Your task to perform on an android device: See recent photos Image 0: 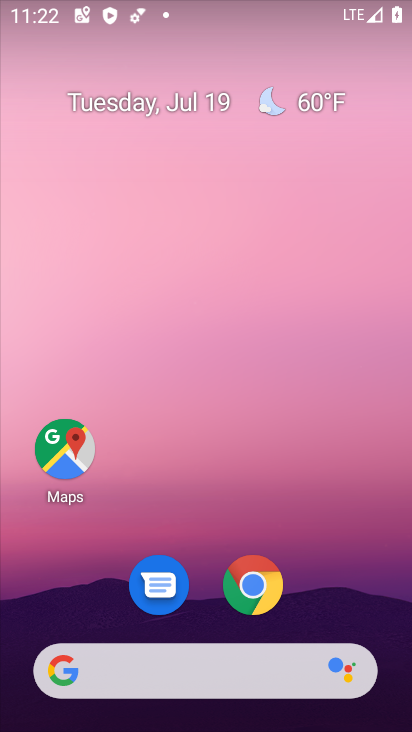
Step 0: drag from (334, 578) to (304, 39)
Your task to perform on an android device: See recent photos Image 1: 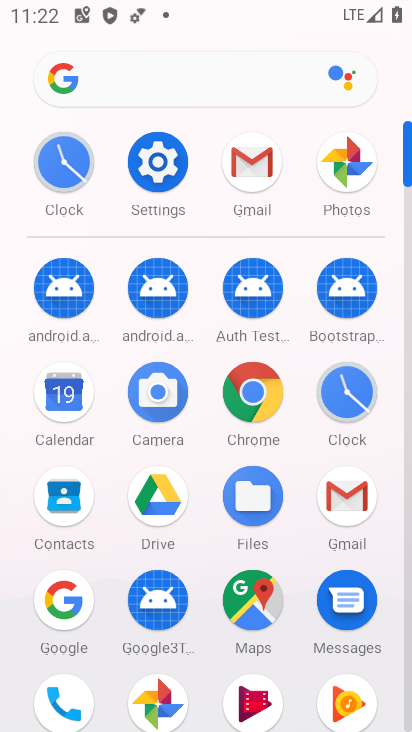
Step 1: click (342, 166)
Your task to perform on an android device: See recent photos Image 2: 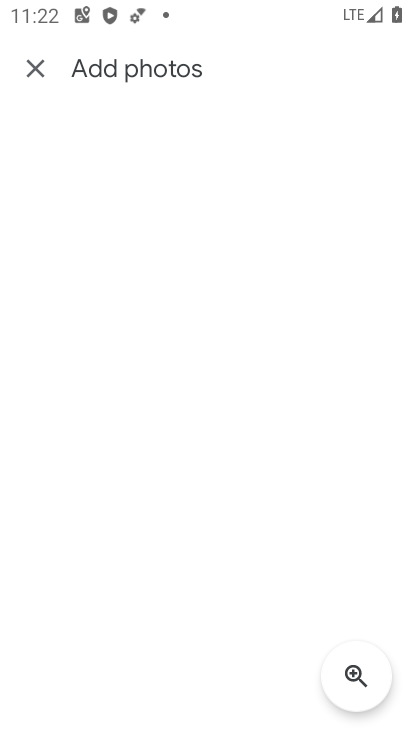
Step 2: click (37, 61)
Your task to perform on an android device: See recent photos Image 3: 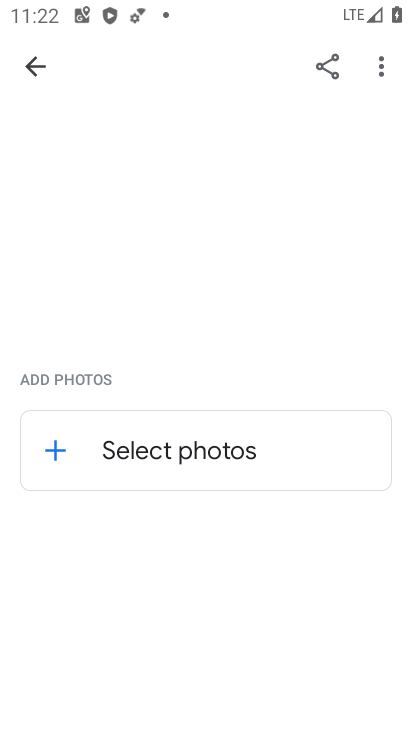
Step 3: click (35, 65)
Your task to perform on an android device: See recent photos Image 4: 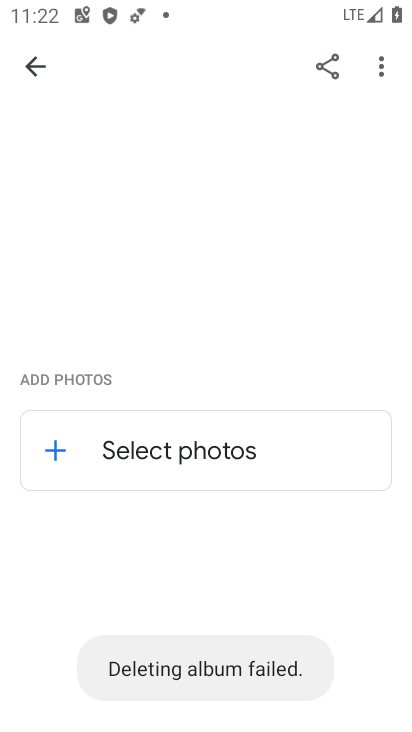
Step 4: click (35, 65)
Your task to perform on an android device: See recent photos Image 5: 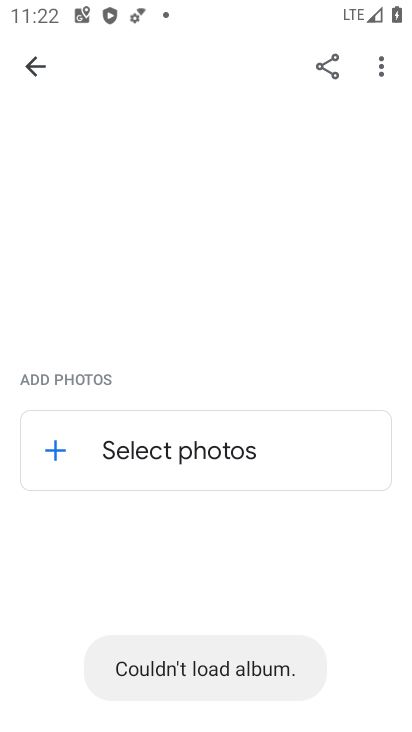
Step 5: click (35, 65)
Your task to perform on an android device: See recent photos Image 6: 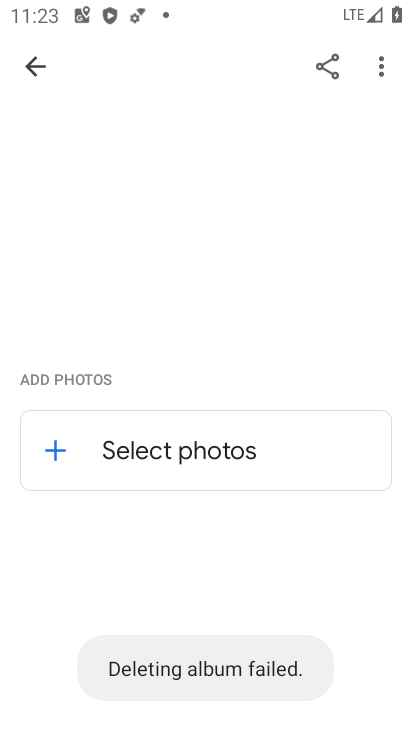
Step 6: click (377, 63)
Your task to perform on an android device: See recent photos Image 7: 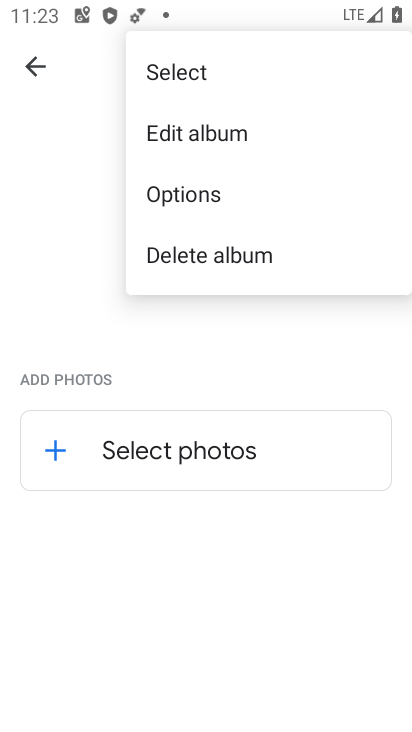
Step 7: click (223, 255)
Your task to perform on an android device: See recent photos Image 8: 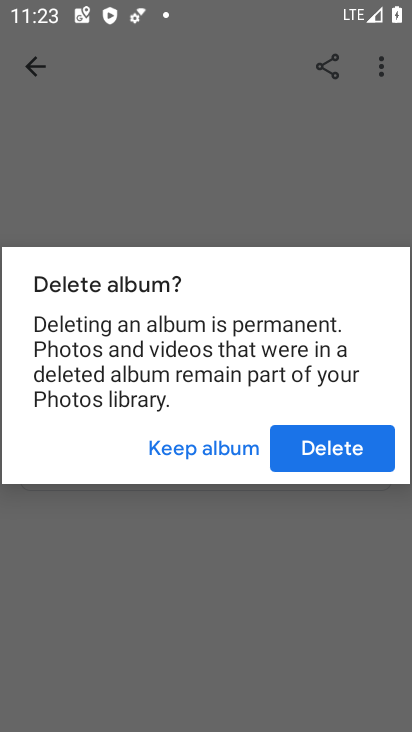
Step 8: click (330, 448)
Your task to perform on an android device: See recent photos Image 9: 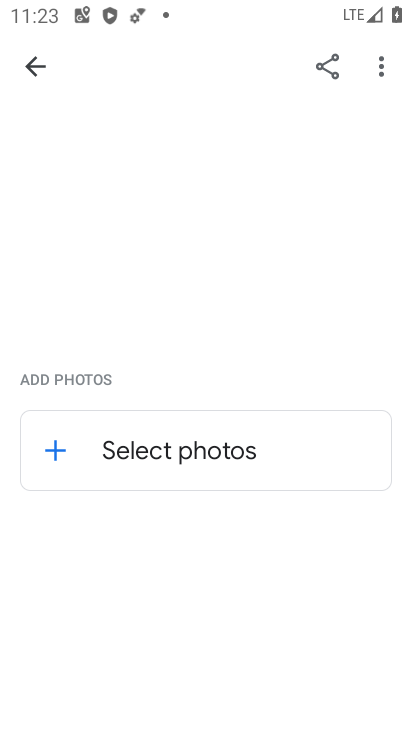
Step 9: click (36, 70)
Your task to perform on an android device: See recent photos Image 10: 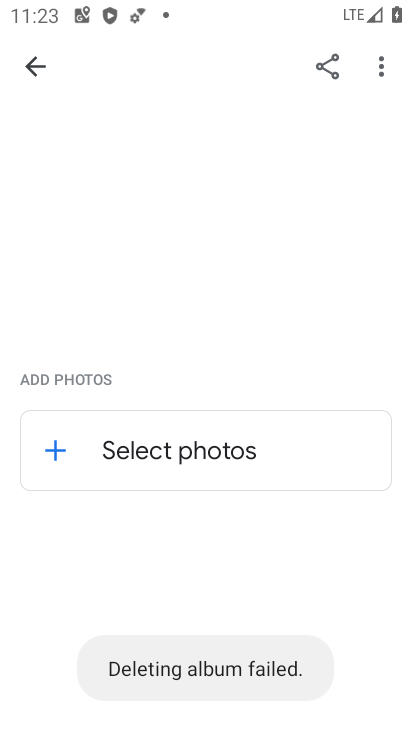
Step 10: click (35, 70)
Your task to perform on an android device: See recent photos Image 11: 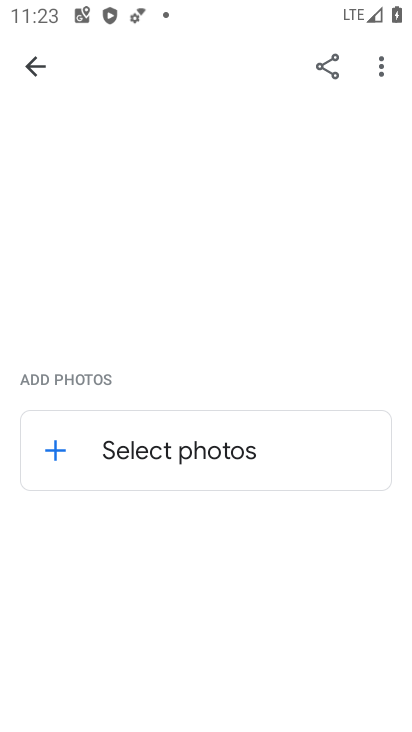
Step 11: click (377, 67)
Your task to perform on an android device: See recent photos Image 12: 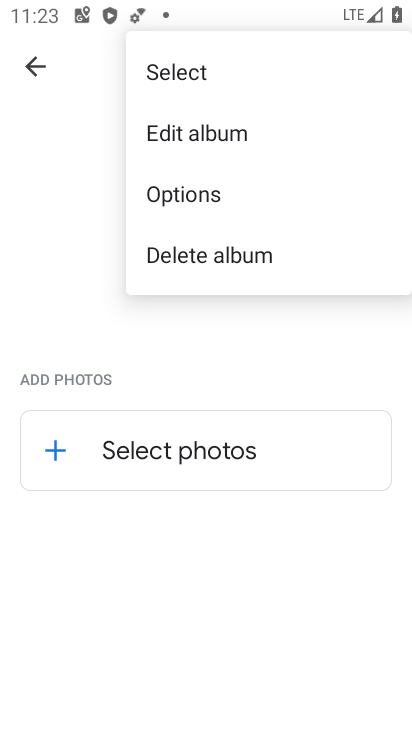
Step 12: click (212, 194)
Your task to perform on an android device: See recent photos Image 13: 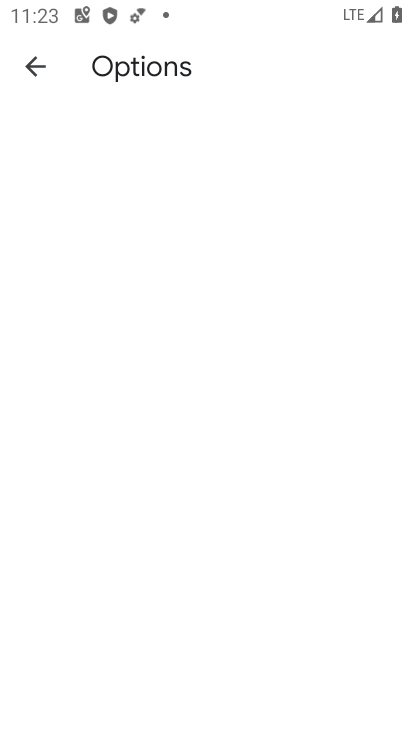
Step 13: click (29, 53)
Your task to perform on an android device: See recent photos Image 14: 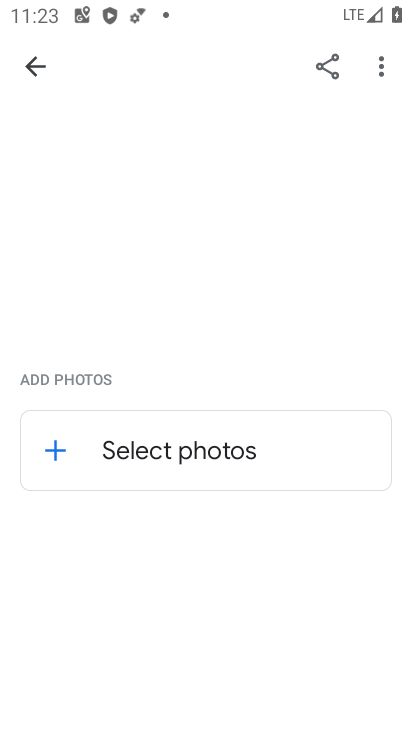
Step 14: click (32, 64)
Your task to perform on an android device: See recent photos Image 15: 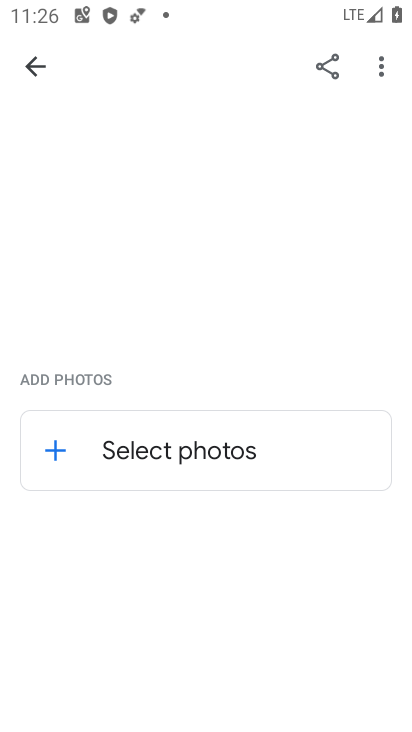
Step 15: task complete